Your task to perform on an android device: turn off sleep mode Image 0: 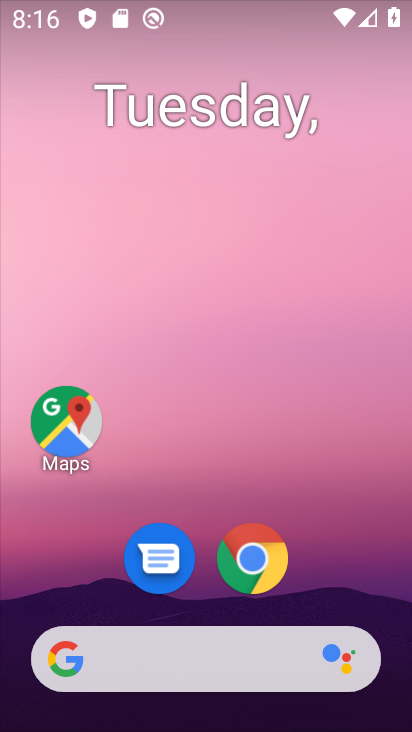
Step 0: drag from (211, 606) to (211, 237)
Your task to perform on an android device: turn off sleep mode Image 1: 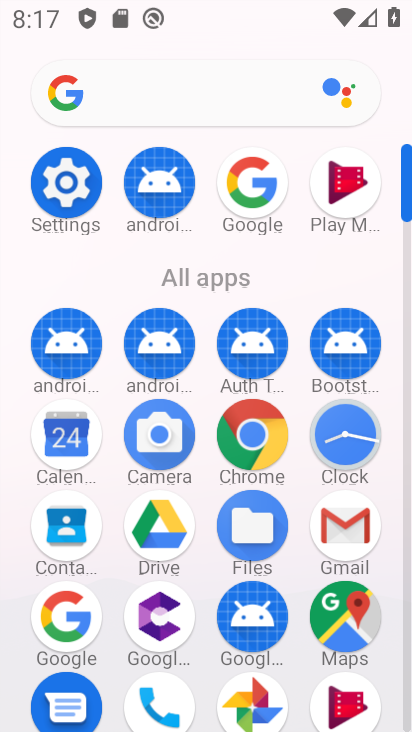
Step 1: click (76, 188)
Your task to perform on an android device: turn off sleep mode Image 2: 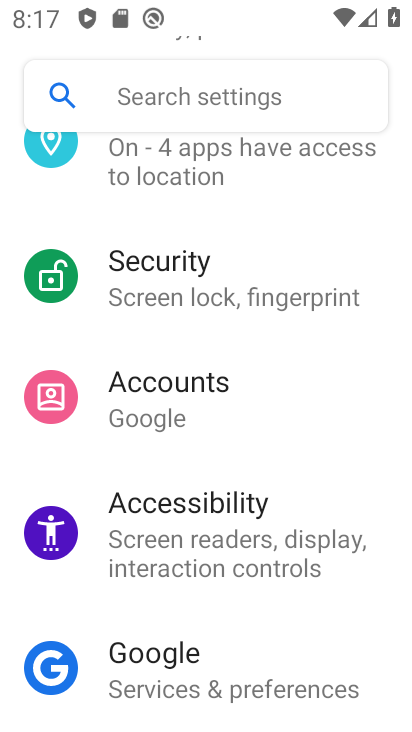
Step 2: drag from (213, 259) to (213, 458)
Your task to perform on an android device: turn off sleep mode Image 3: 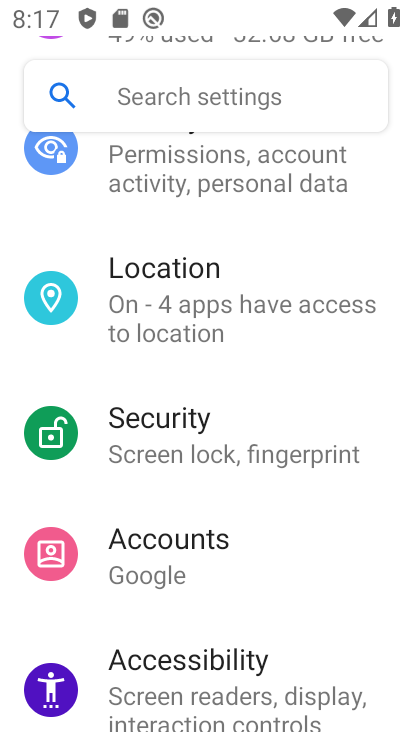
Step 3: drag from (234, 268) to (242, 457)
Your task to perform on an android device: turn off sleep mode Image 4: 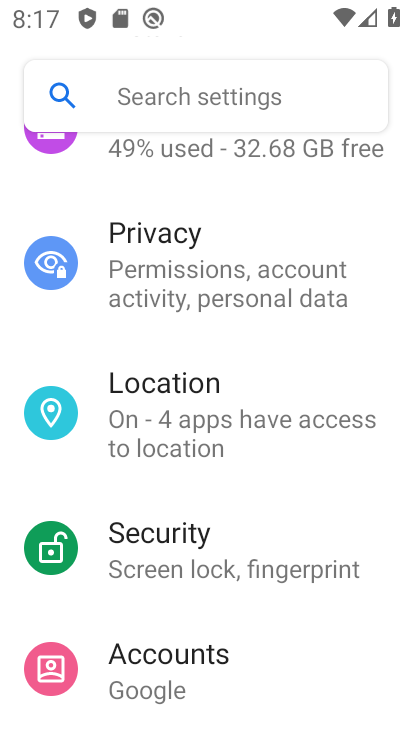
Step 4: drag from (235, 241) to (235, 501)
Your task to perform on an android device: turn off sleep mode Image 5: 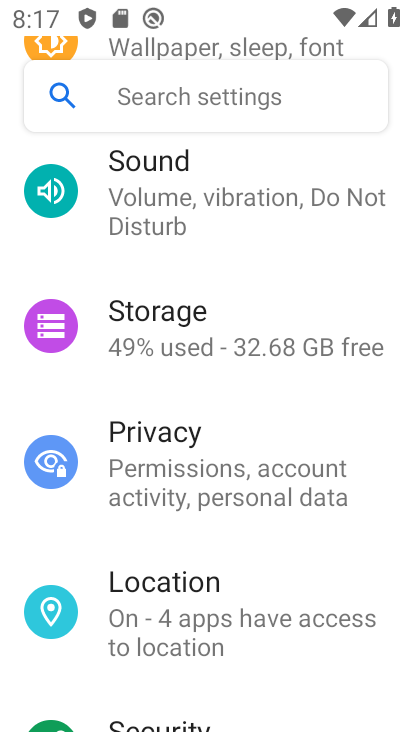
Step 5: drag from (227, 253) to (223, 677)
Your task to perform on an android device: turn off sleep mode Image 6: 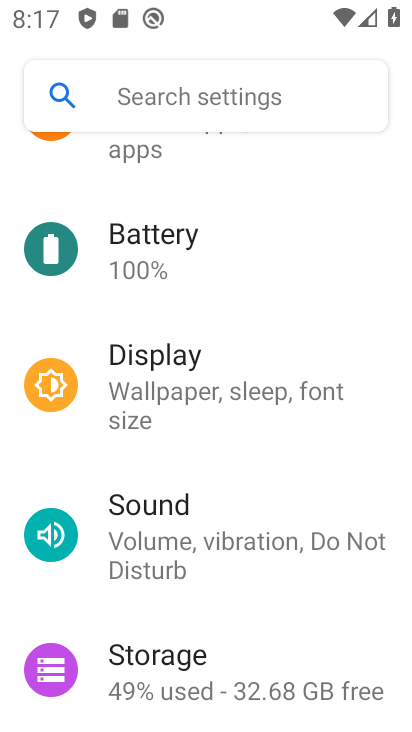
Step 6: click (193, 416)
Your task to perform on an android device: turn off sleep mode Image 7: 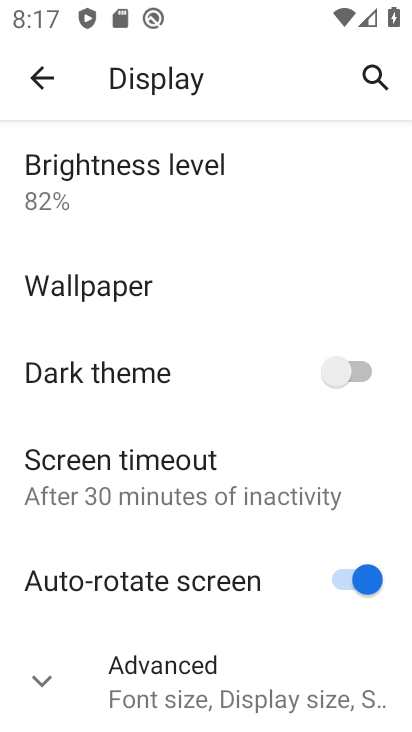
Step 7: click (159, 481)
Your task to perform on an android device: turn off sleep mode Image 8: 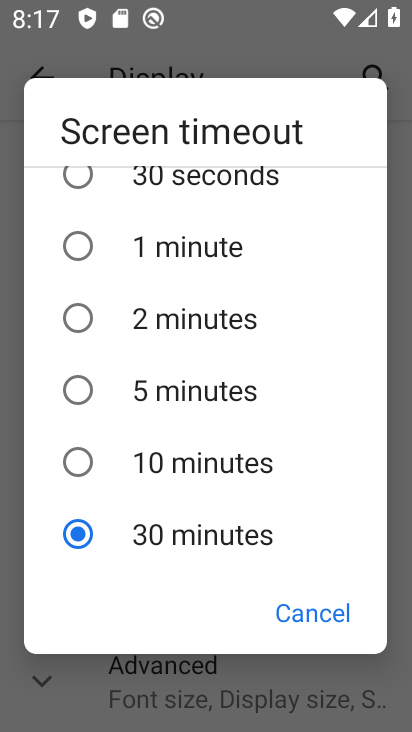
Step 8: click (216, 245)
Your task to perform on an android device: turn off sleep mode Image 9: 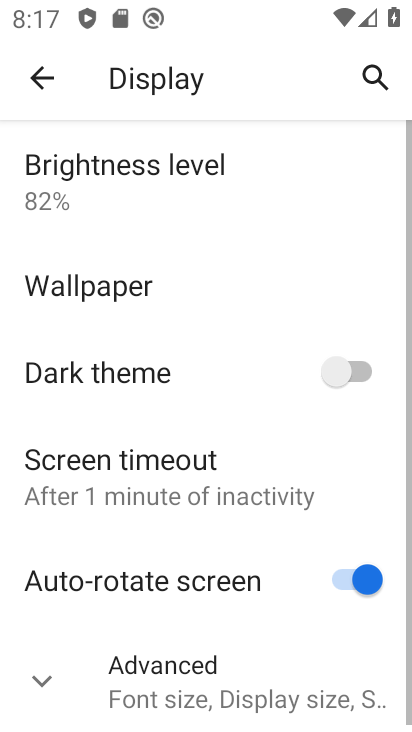
Step 9: task complete